Your task to perform on an android device: Open calendar and show me the first week of next month Image 0: 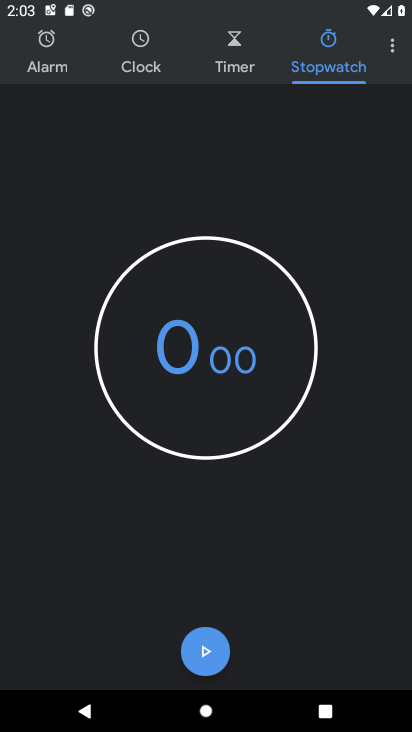
Step 0: press home button
Your task to perform on an android device: Open calendar and show me the first week of next month Image 1: 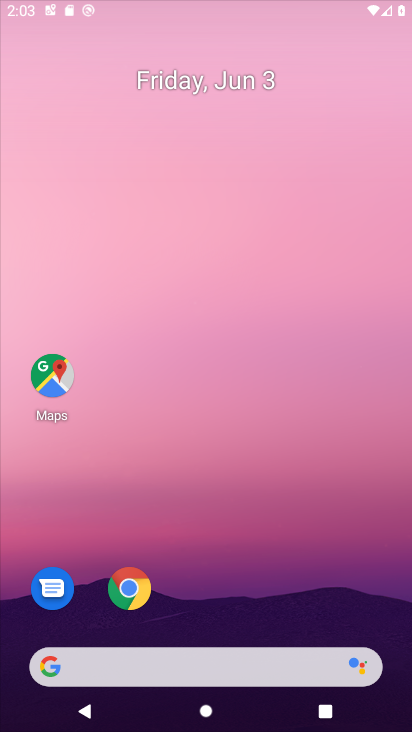
Step 1: drag from (252, 630) to (220, 175)
Your task to perform on an android device: Open calendar and show me the first week of next month Image 2: 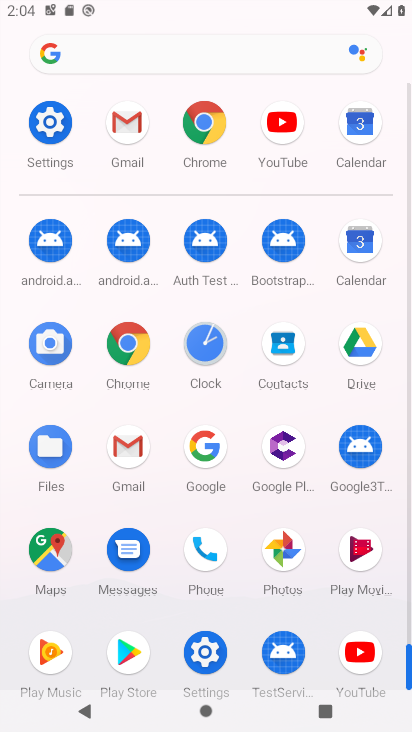
Step 2: click (53, 116)
Your task to perform on an android device: Open calendar and show me the first week of next month Image 3: 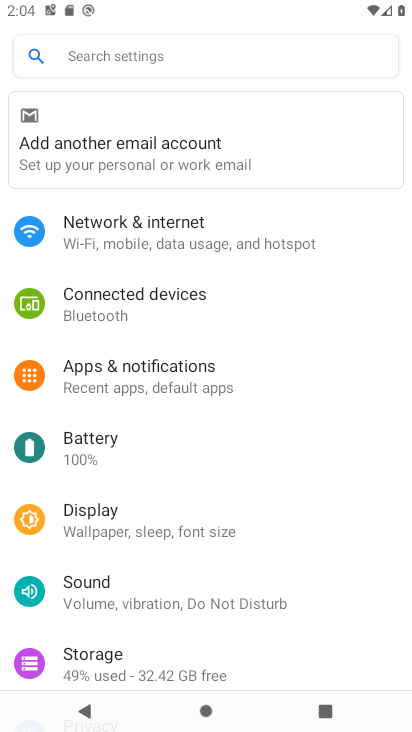
Step 3: drag from (128, 497) to (119, 311)
Your task to perform on an android device: Open calendar and show me the first week of next month Image 4: 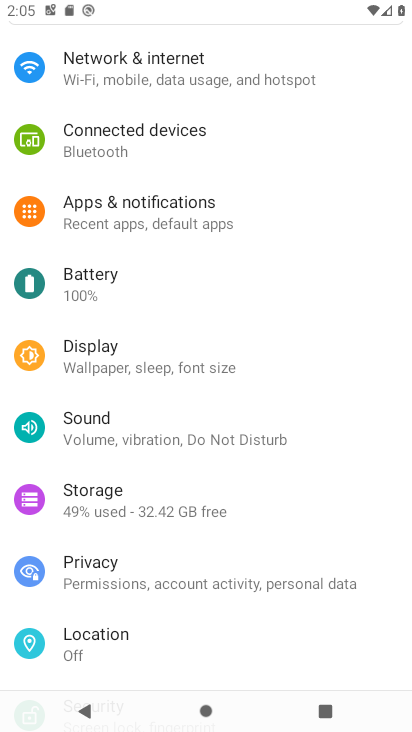
Step 4: press home button
Your task to perform on an android device: Open calendar and show me the first week of next month Image 5: 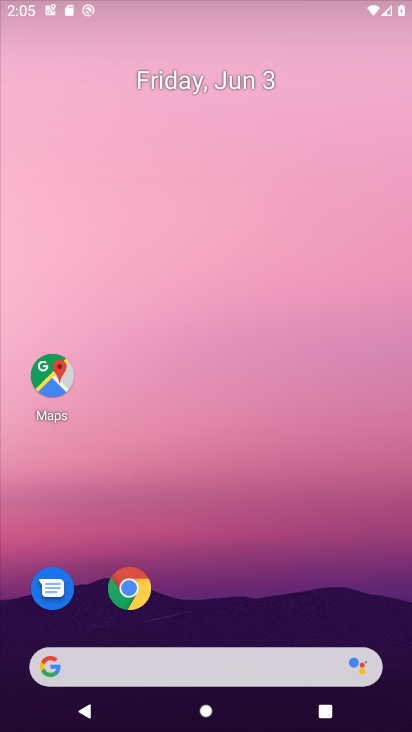
Step 5: drag from (245, 585) to (287, 160)
Your task to perform on an android device: Open calendar and show me the first week of next month Image 6: 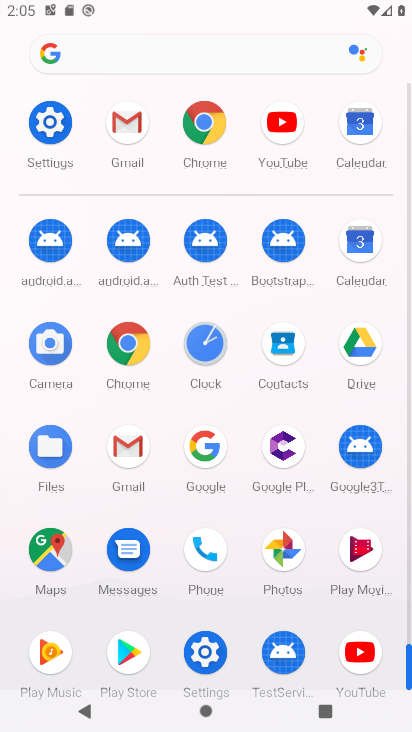
Step 6: click (357, 255)
Your task to perform on an android device: Open calendar and show me the first week of next month Image 7: 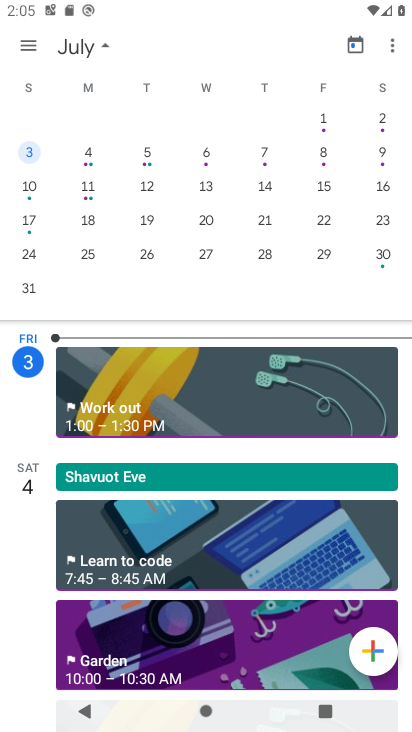
Step 7: click (335, 116)
Your task to perform on an android device: Open calendar and show me the first week of next month Image 8: 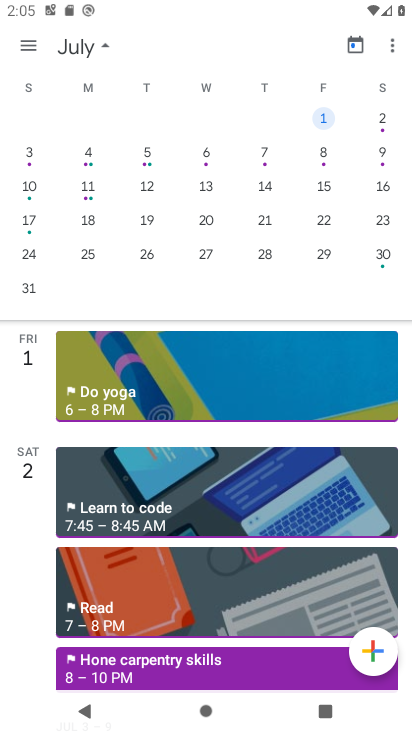
Step 8: task complete